Your task to perform on an android device: Open wifi settings Image 0: 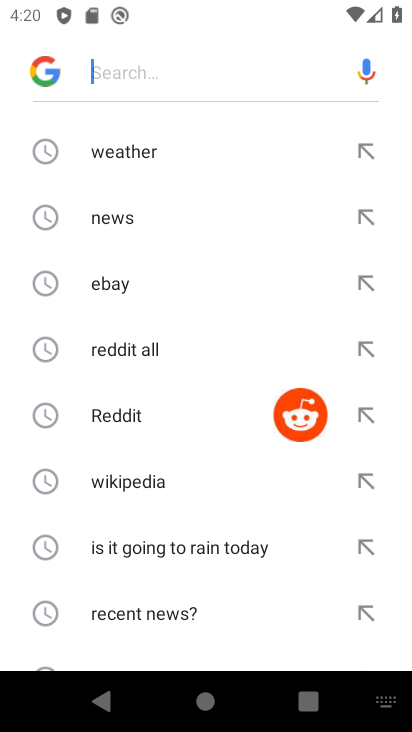
Step 0: press home button
Your task to perform on an android device: Open wifi settings Image 1: 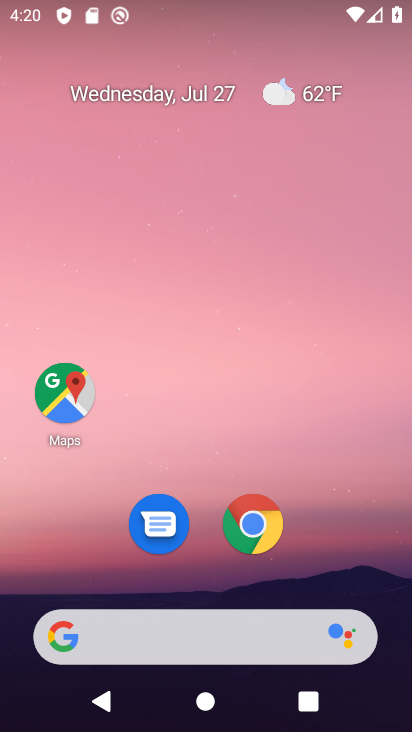
Step 1: drag from (306, 532) to (307, 51)
Your task to perform on an android device: Open wifi settings Image 2: 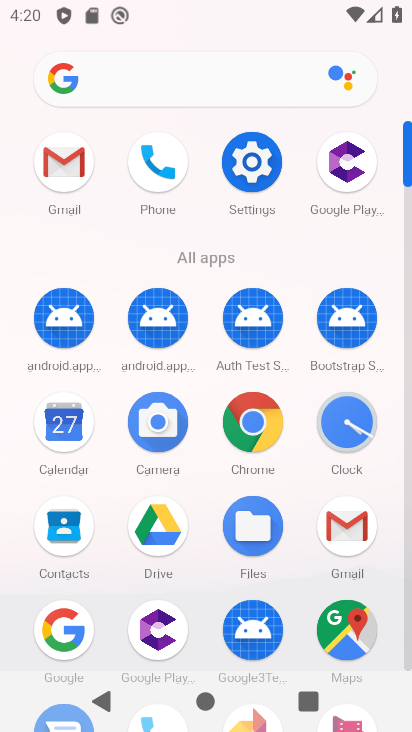
Step 2: click (251, 156)
Your task to perform on an android device: Open wifi settings Image 3: 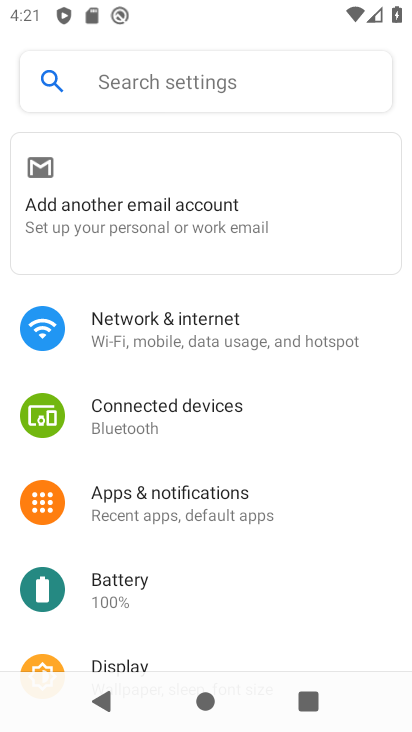
Step 3: click (209, 324)
Your task to perform on an android device: Open wifi settings Image 4: 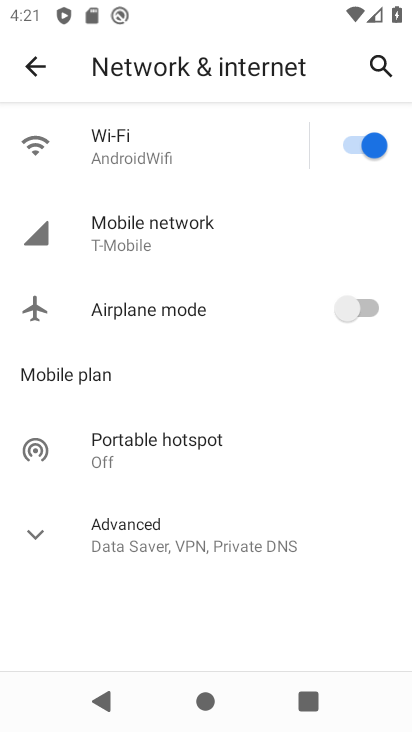
Step 4: task complete